Your task to perform on an android device: open a bookmark in the chrome app Image 0: 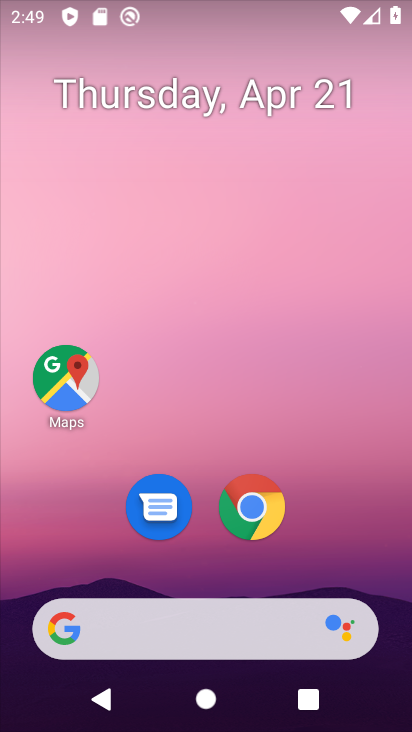
Step 0: click (264, 525)
Your task to perform on an android device: open a bookmark in the chrome app Image 1: 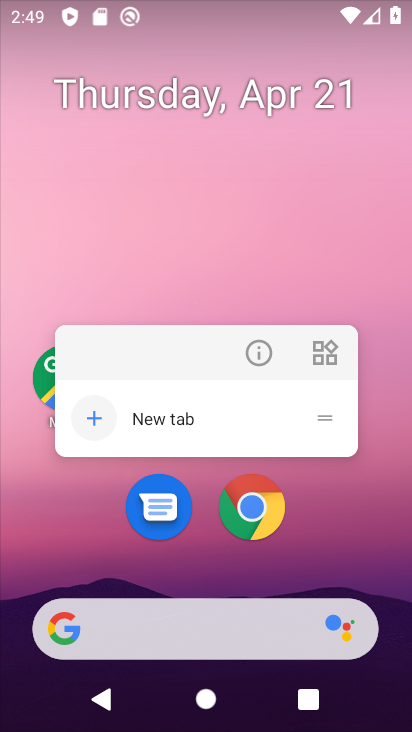
Step 1: click (259, 524)
Your task to perform on an android device: open a bookmark in the chrome app Image 2: 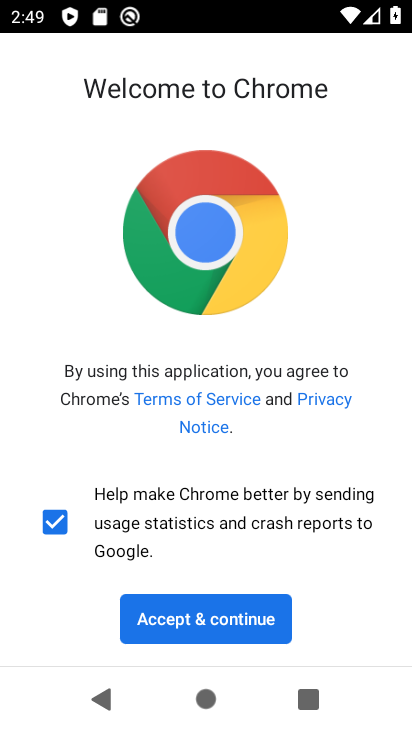
Step 2: click (232, 624)
Your task to perform on an android device: open a bookmark in the chrome app Image 3: 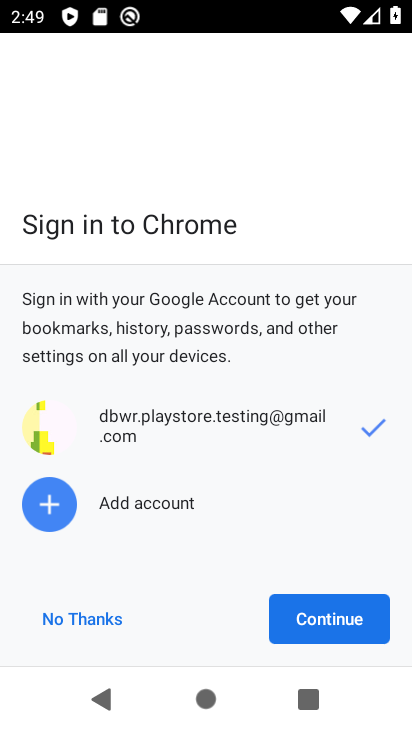
Step 3: click (329, 623)
Your task to perform on an android device: open a bookmark in the chrome app Image 4: 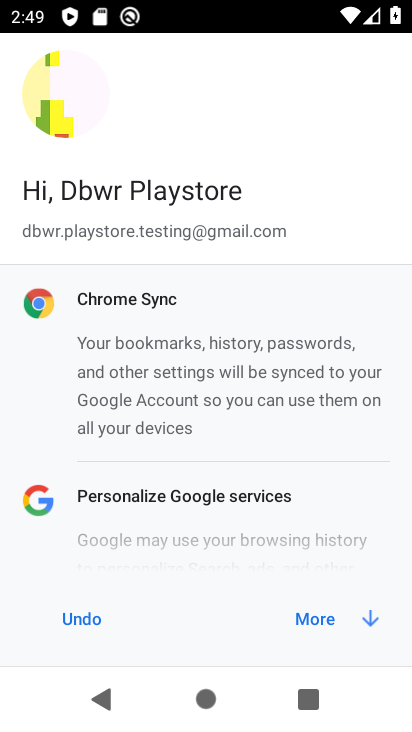
Step 4: click (329, 623)
Your task to perform on an android device: open a bookmark in the chrome app Image 5: 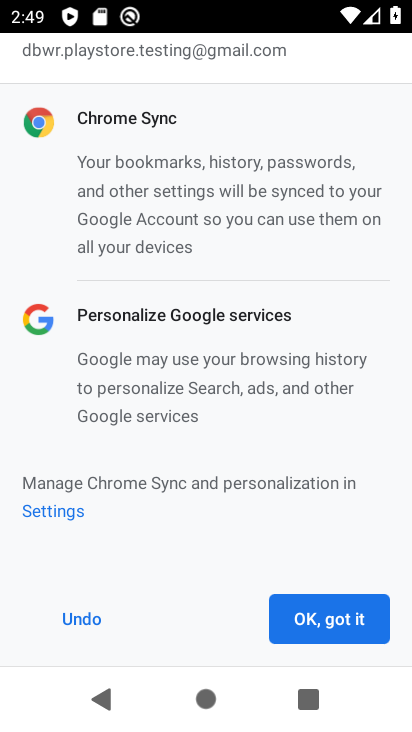
Step 5: click (297, 621)
Your task to perform on an android device: open a bookmark in the chrome app Image 6: 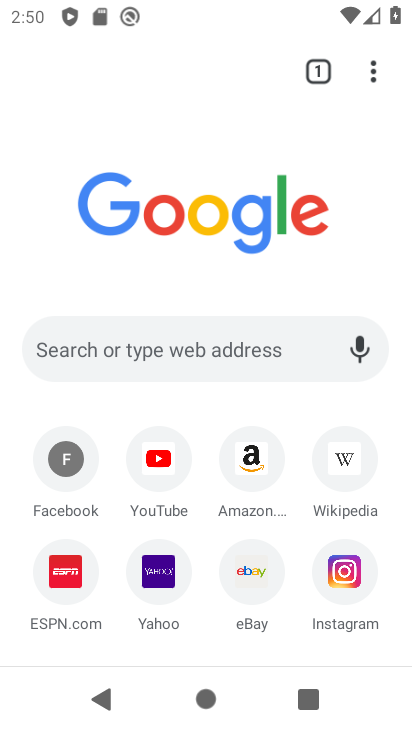
Step 6: click (373, 72)
Your task to perform on an android device: open a bookmark in the chrome app Image 7: 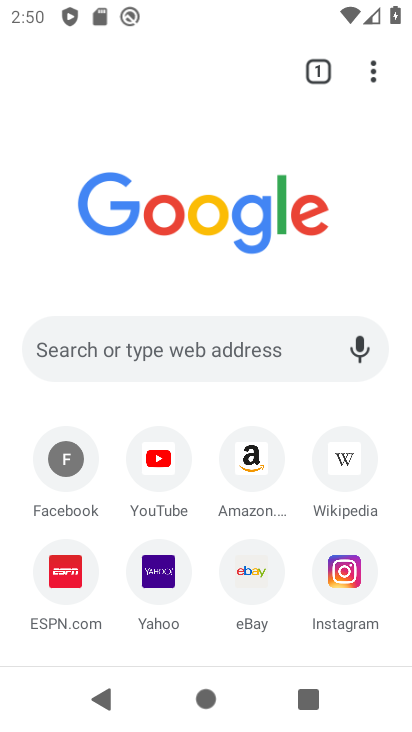
Step 7: click (152, 278)
Your task to perform on an android device: open a bookmark in the chrome app Image 8: 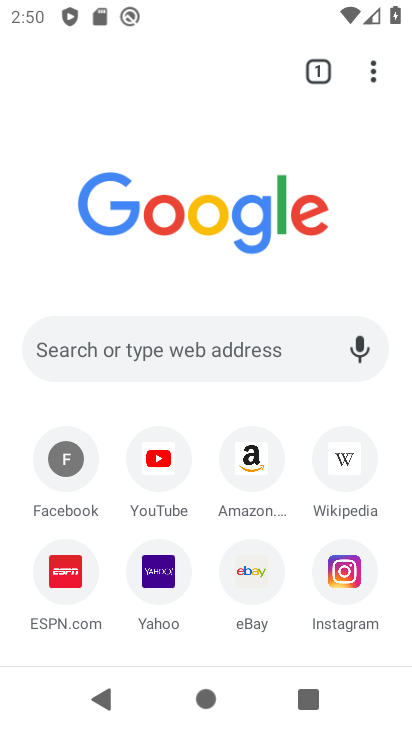
Step 8: task complete